Your task to perform on an android device: Search for sushi restaurants on Maps Image 0: 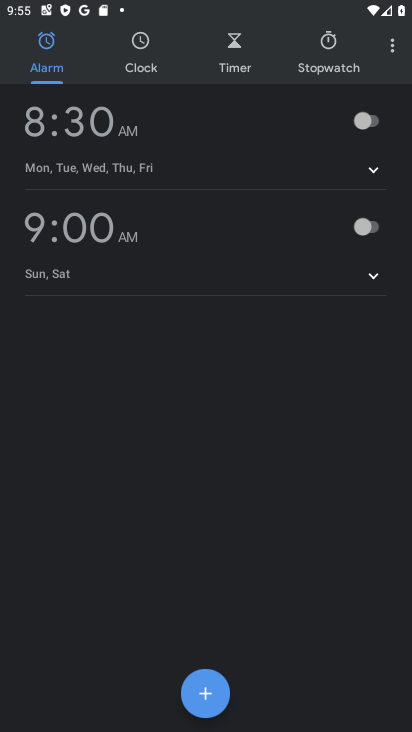
Step 0: press home button
Your task to perform on an android device: Search for sushi restaurants on Maps Image 1: 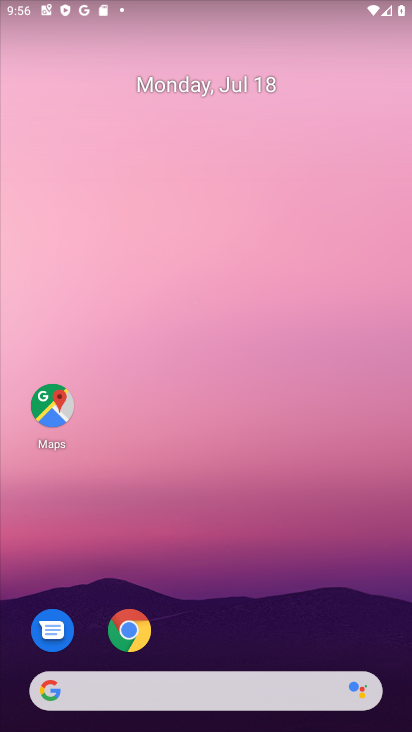
Step 1: drag from (337, 647) to (213, 103)
Your task to perform on an android device: Search for sushi restaurants on Maps Image 2: 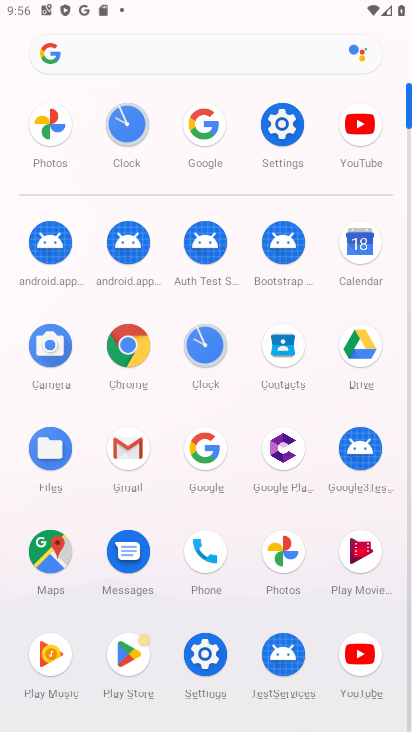
Step 2: click (51, 544)
Your task to perform on an android device: Search for sushi restaurants on Maps Image 3: 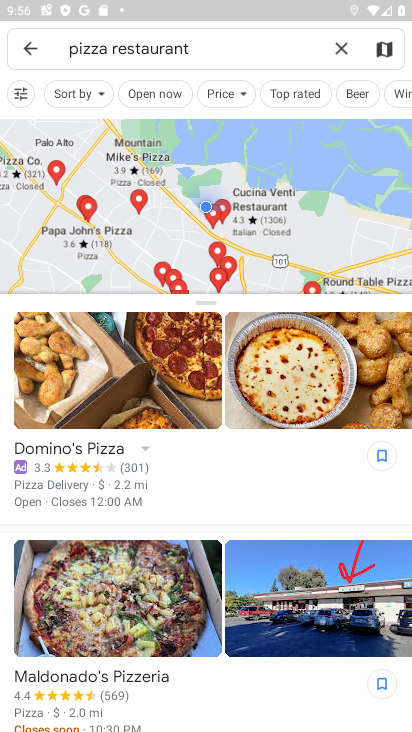
Step 3: click (337, 57)
Your task to perform on an android device: Search for sushi restaurants on Maps Image 4: 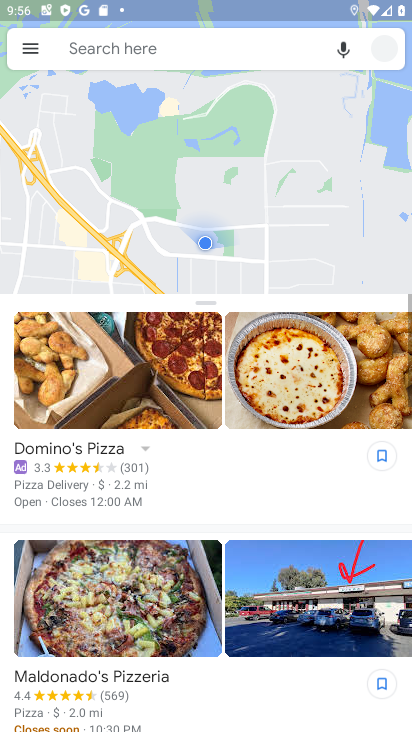
Step 4: click (175, 50)
Your task to perform on an android device: Search for sushi restaurants on Maps Image 5: 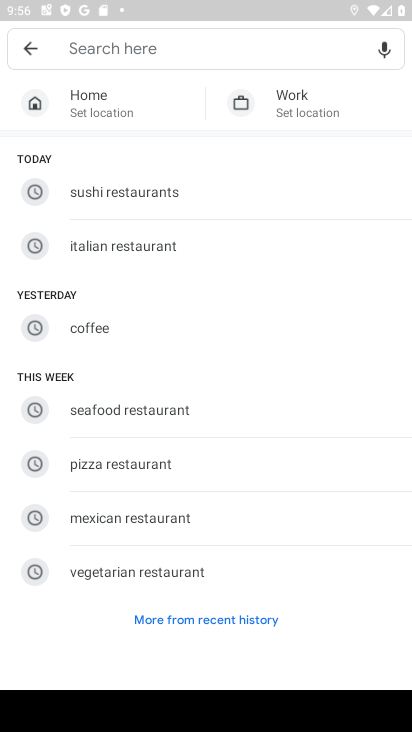
Step 5: click (153, 192)
Your task to perform on an android device: Search for sushi restaurants on Maps Image 6: 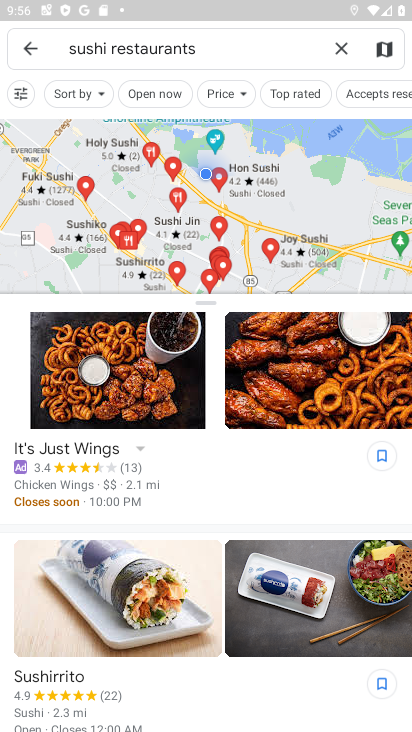
Step 6: task complete